Your task to perform on an android device: Is it going to rain this weekend? Image 0: 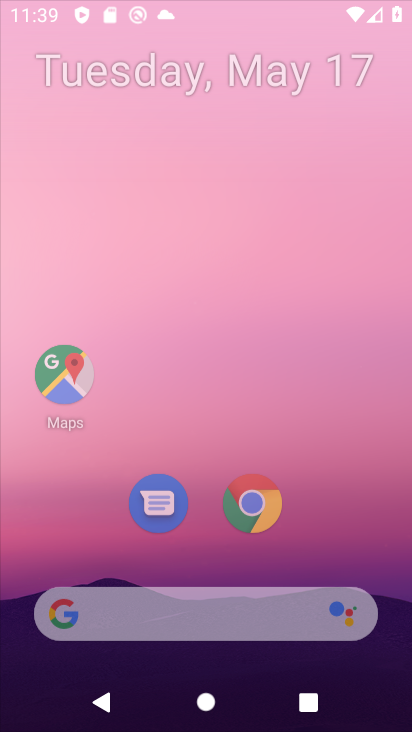
Step 0: click (80, 403)
Your task to perform on an android device: Is it going to rain this weekend? Image 1: 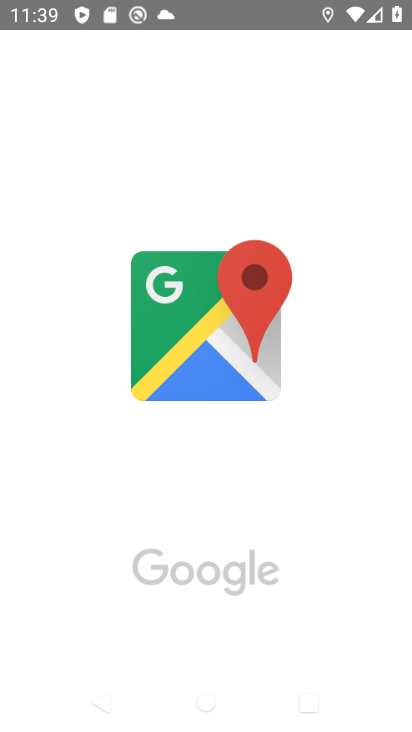
Step 1: press home button
Your task to perform on an android device: Is it going to rain this weekend? Image 2: 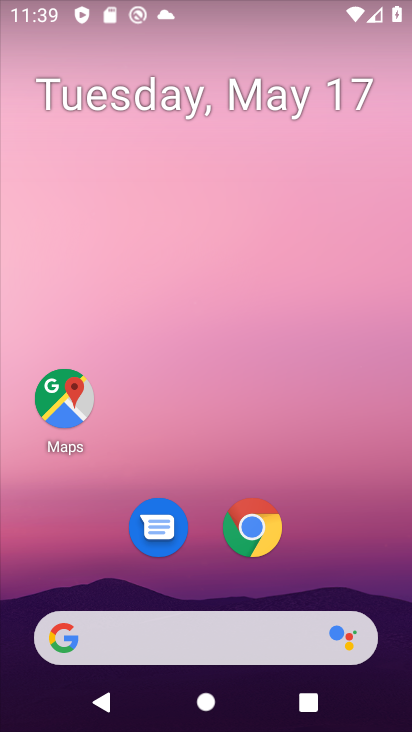
Step 2: drag from (275, 510) to (304, 203)
Your task to perform on an android device: Is it going to rain this weekend? Image 3: 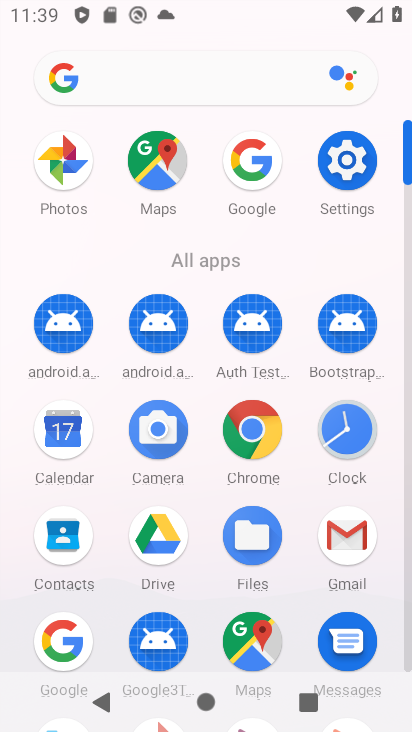
Step 3: click (257, 152)
Your task to perform on an android device: Is it going to rain this weekend? Image 4: 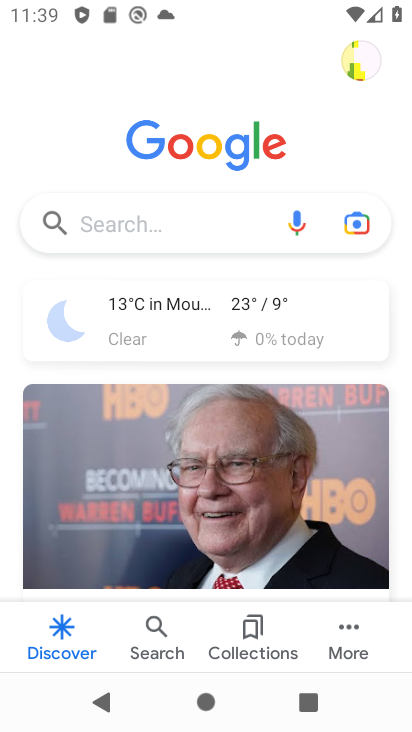
Step 4: click (123, 219)
Your task to perform on an android device: Is it going to rain this weekend? Image 5: 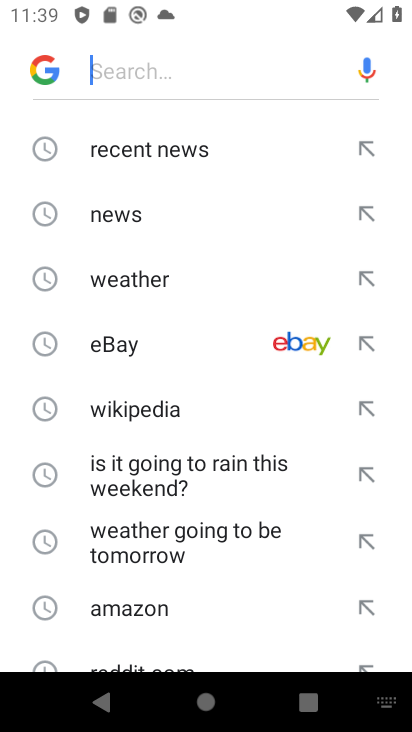
Step 5: click (148, 490)
Your task to perform on an android device: Is it going to rain this weekend? Image 6: 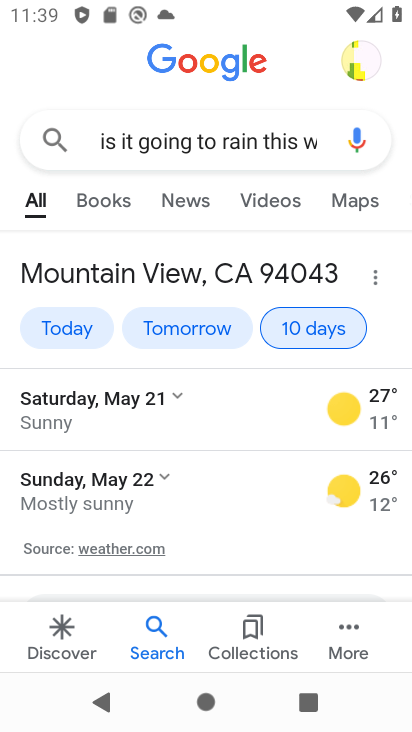
Step 6: task complete